Your task to perform on an android device: open app "TextNow: Call + Text Unlimited" (install if not already installed) and enter user name: "stoke@yahoo.com" and password: "prompted" Image 0: 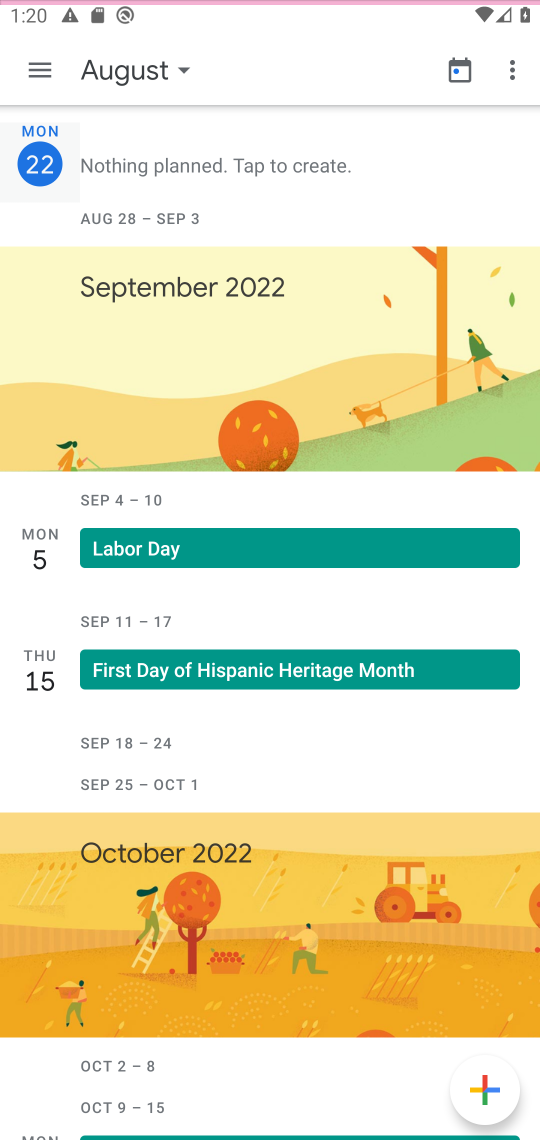
Step 0: press back button
Your task to perform on an android device: open app "TextNow: Call + Text Unlimited" (install if not already installed) and enter user name: "stoke@yahoo.com" and password: "prompted" Image 1: 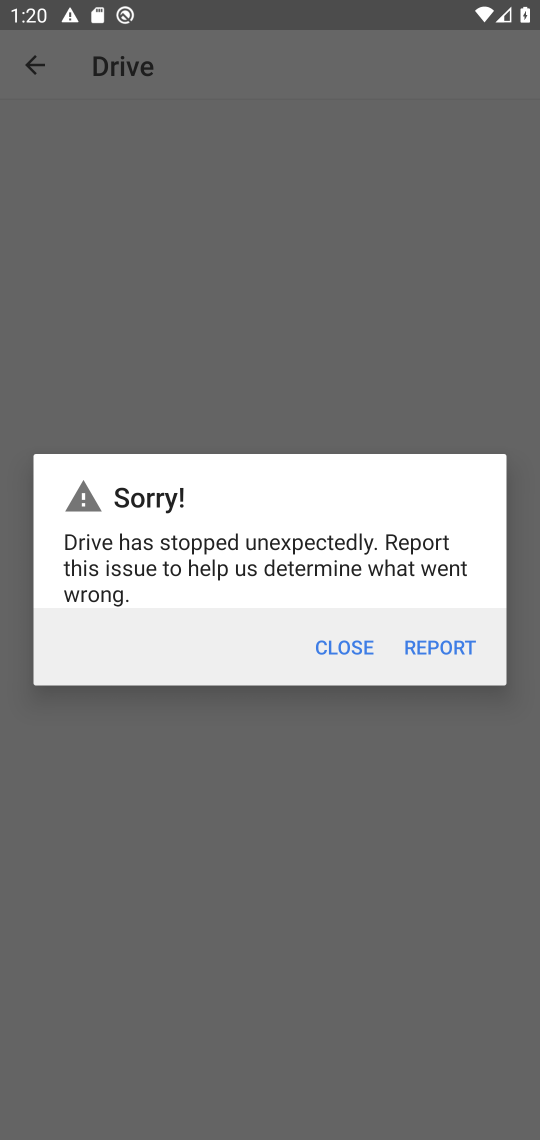
Step 1: press home button
Your task to perform on an android device: open app "TextNow: Call + Text Unlimited" (install if not already installed) and enter user name: "stoke@yahoo.com" and password: "prompted" Image 2: 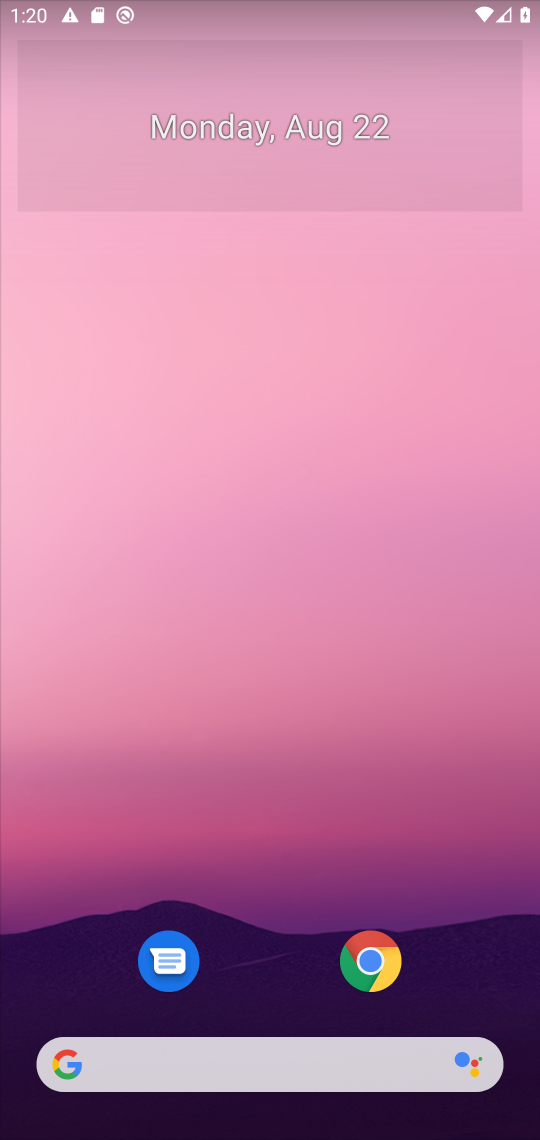
Step 2: drag from (457, 929) to (428, 106)
Your task to perform on an android device: open app "TextNow: Call + Text Unlimited" (install if not already installed) and enter user name: "stoke@yahoo.com" and password: "prompted" Image 3: 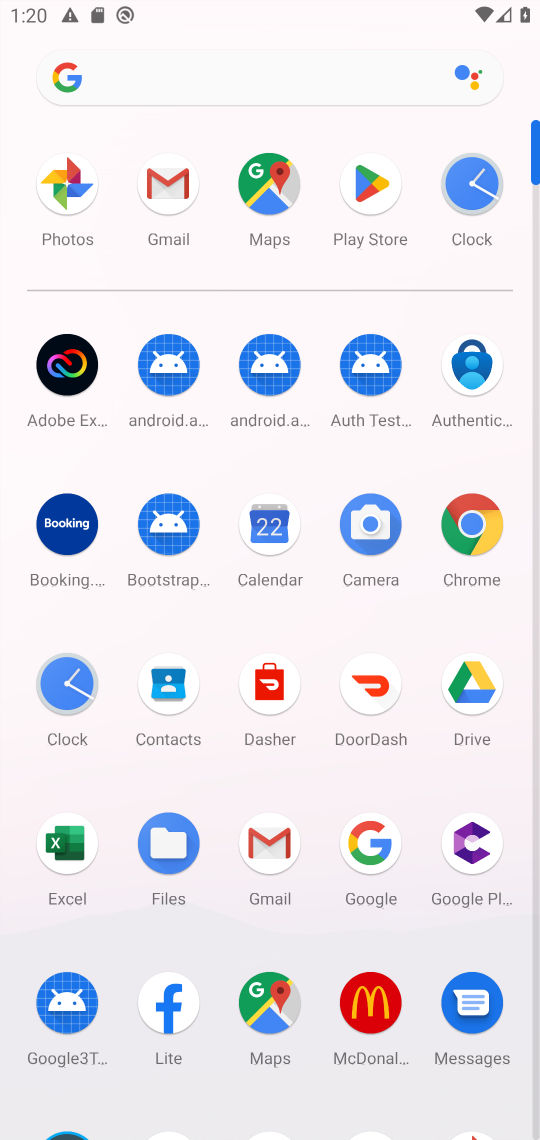
Step 3: click (373, 191)
Your task to perform on an android device: open app "TextNow: Call + Text Unlimited" (install if not already installed) and enter user name: "stoke@yahoo.com" and password: "prompted" Image 4: 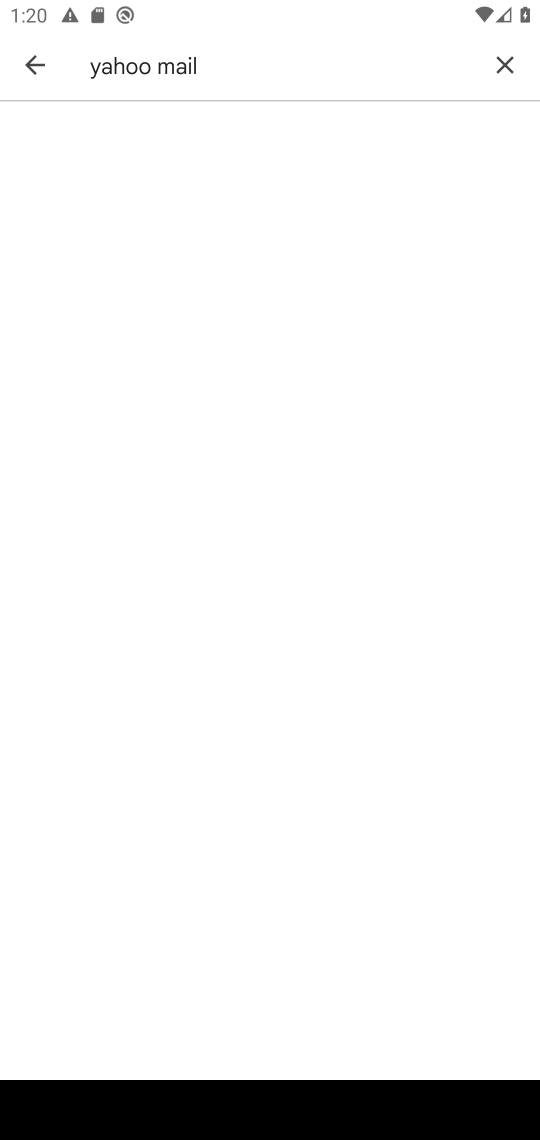
Step 4: press back button
Your task to perform on an android device: open app "TextNow: Call + Text Unlimited" (install if not already installed) and enter user name: "stoke@yahoo.com" and password: "prompted" Image 5: 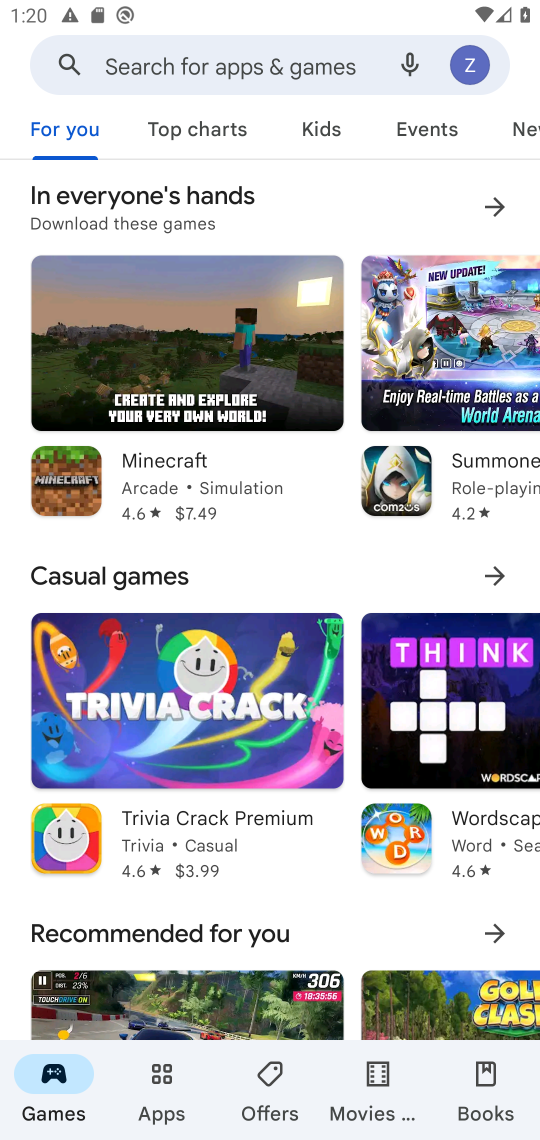
Step 5: click (267, 64)
Your task to perform on an android device: open app "TextNow: Call + Text Unlimited" (install if not already installed) and enter user name: "stoke@yahoo.com" and password: "prompted" Image 6: 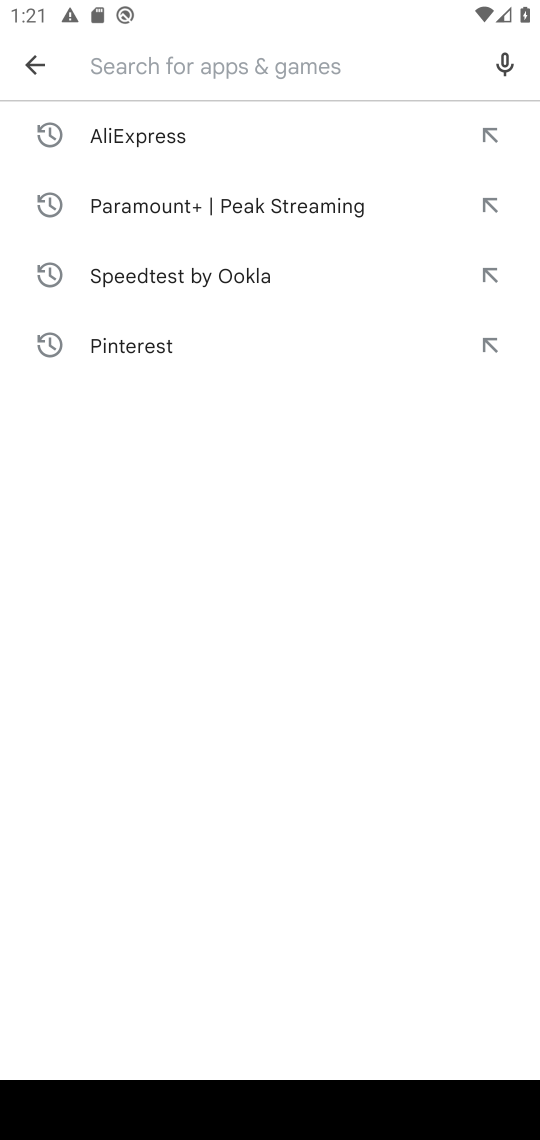
Step 6: type "TextNow: Call + Text Unlimited"
Your task to perform on an android device: open app "TextNow: Call + Text Unlimited" (install if not already installed) and enter user name: "stoke@yahoo.com" and password: "prompted" Image 7: 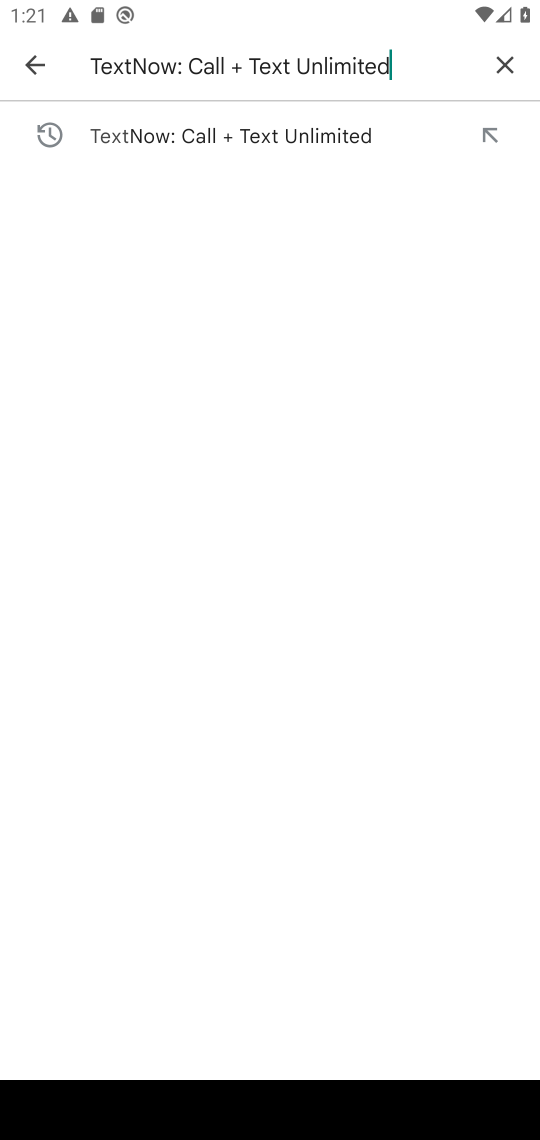
Step 7: press enter
Your task to perform on an android device: open app "TextNow: Call + Text Unlimited" (install if not already installed) and enter user name: "stoke@yahoo.com" and password: "prompted" Image 8: 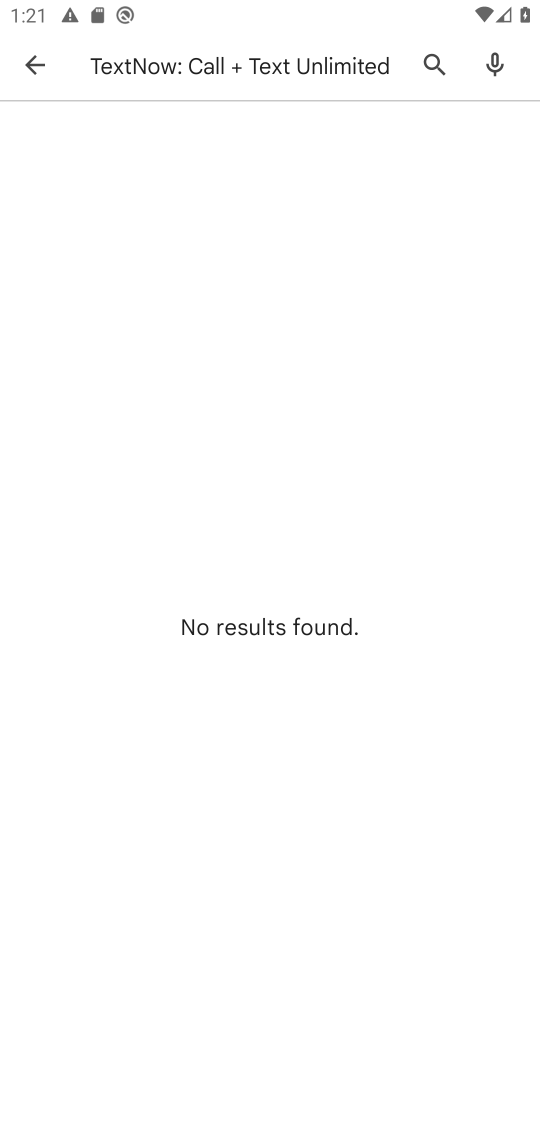
Step 8: task complete